Your task to perform on an android device: choose inbox layout in the gmail app Image 0: 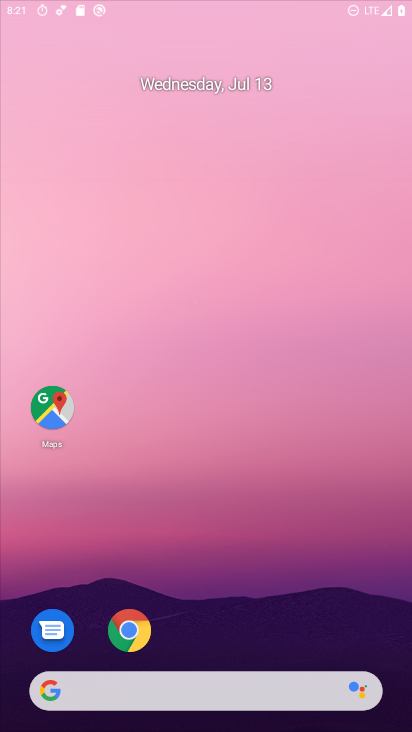
Step 0: click (311, 33)
Your task to perform on an android device: choose inbox layout in the gmail app Image 1: 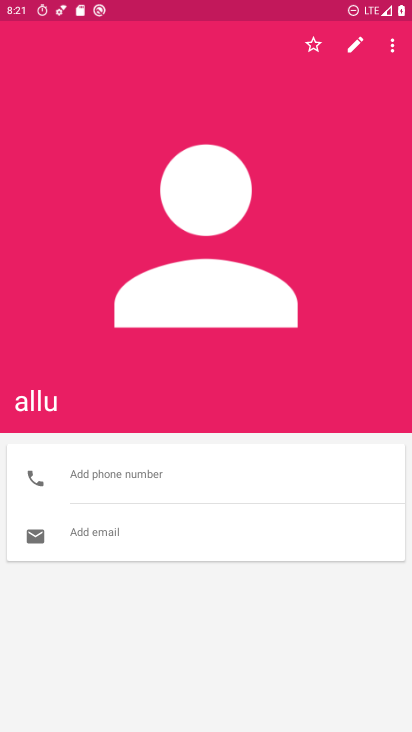
Step 1: press home button
Your task to perform on an android device: choose inbox layout in the gmail app Image 2: 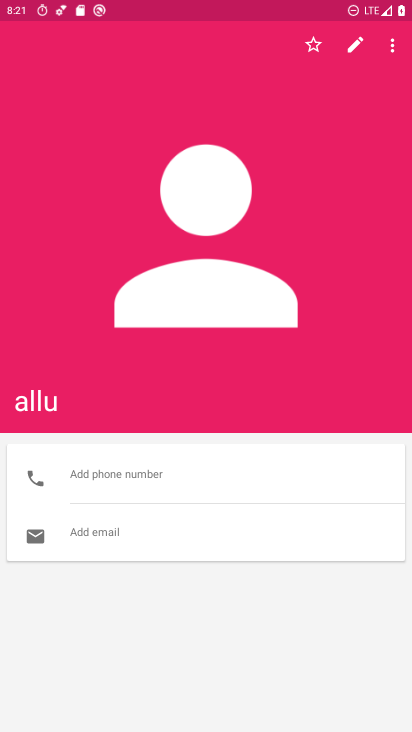
Step 2: drag from (392, 698) to (313, 24)
Your task to perform on an android device: choose inbox layout in the gmail app Image 3: 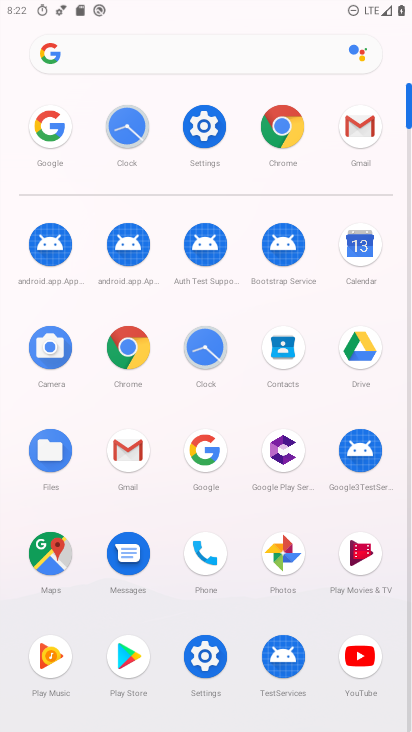
Step 3: click (131, 470)
Your task to perform on an android device: choose inbox layout in the gmail app Image 4: 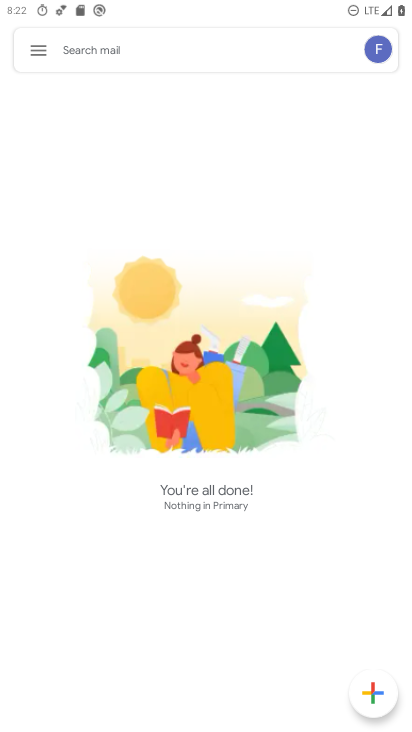
Step 4: task complete